Your task to perform on an android device: Open CNN.com Image 0: 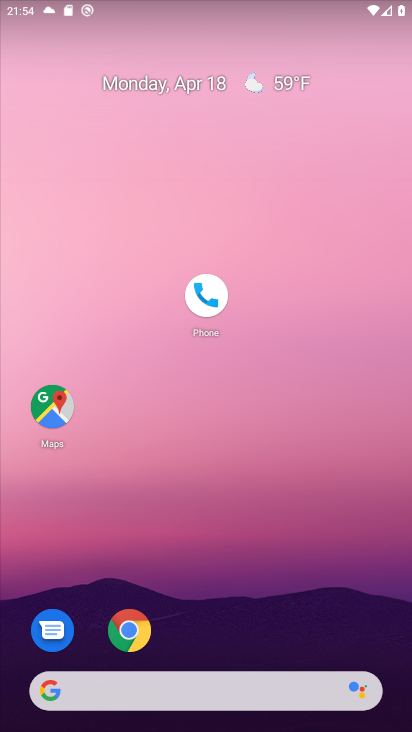
Step 0: drag from (282, 504) to (323, 91)
Your task to perform on an android device: Open CNN.com Image 1: 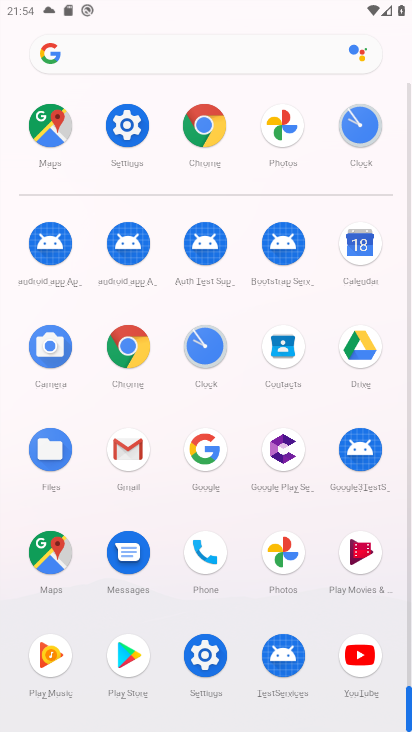
Step 1: click (127, 344)
Your task to perform on an android device: Open CNN.com Image 2: 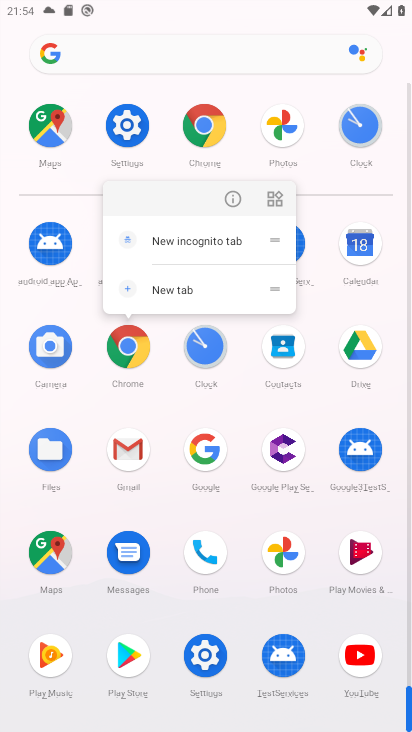
Step 2: click (132, 351)
Your task to perform on an android device: Open CNN.com Image 3: 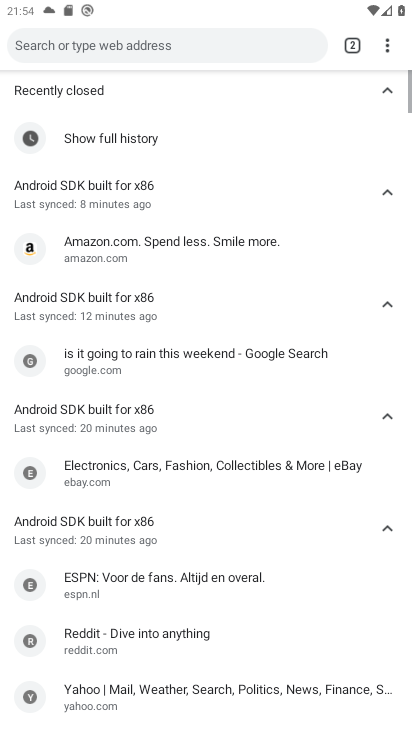
Step 3: click (264, 49)
Your task to perform on an android device: Open CNN.com Image 4: 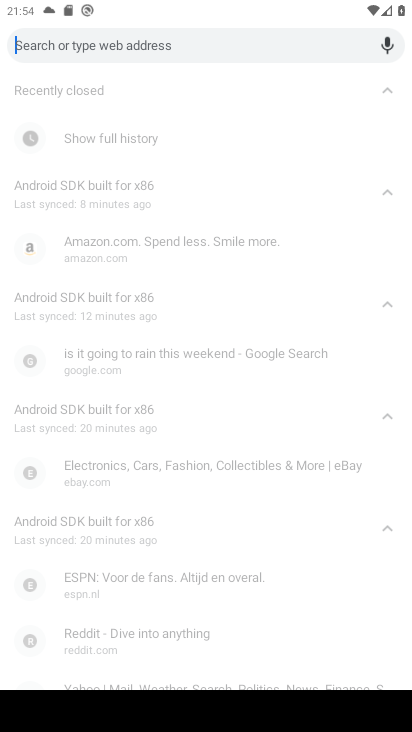
Step 4: type "cnn.com"
Your task to perform on an android device: Open CNN.com Image 5: 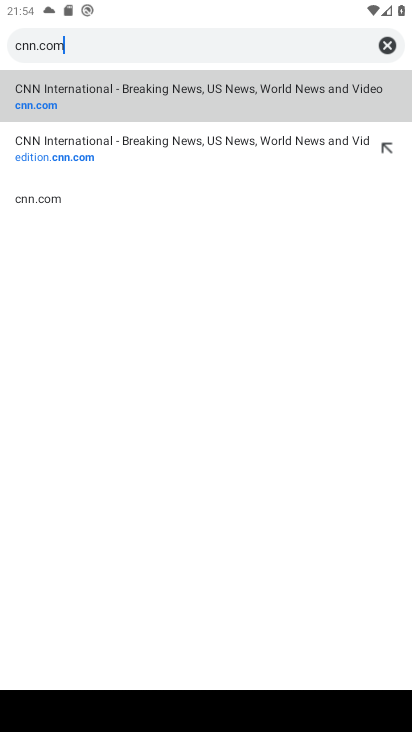
Step 5: click (43, 96)
Your task to perform on an android device: Open CNN.com Image 6: 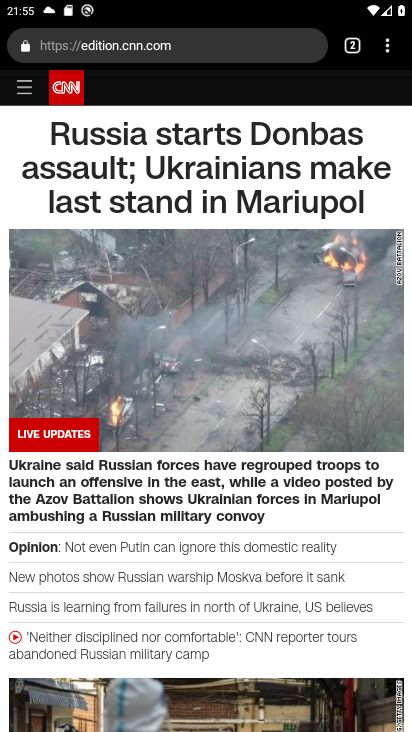
Step 6: task complete